Your task to perform on an android device: turn pop-ups off in chrome Image 0: 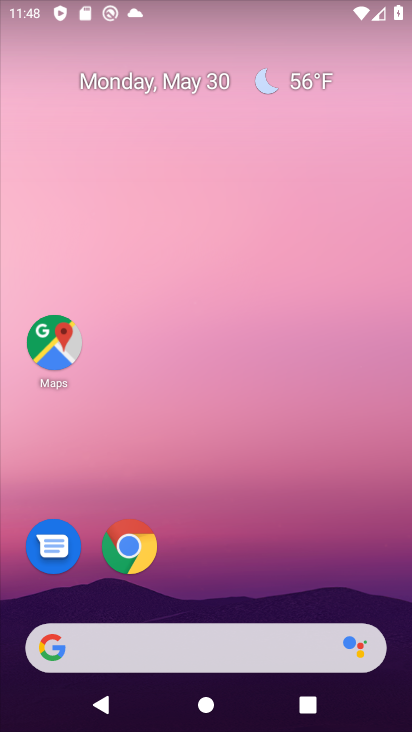
Step 0: drag from (277, 688) to (242, 137)
Your task to perform on an android device: turn pop-ups off in chrome Image 1: 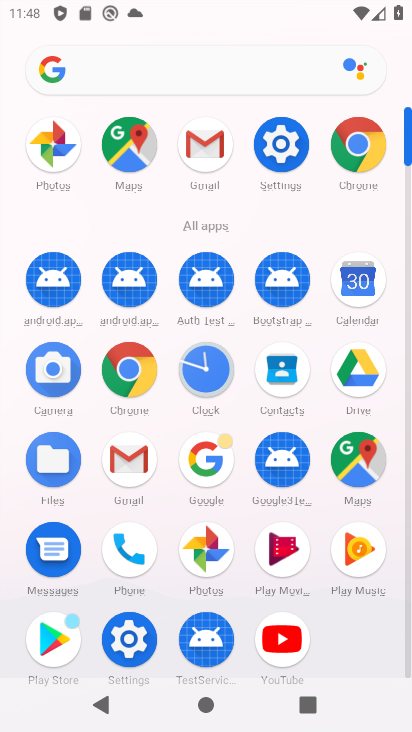
Step 1: click (368, 136)
Your task to perform on an android device: turn pop-ups off in chrome Image 2: 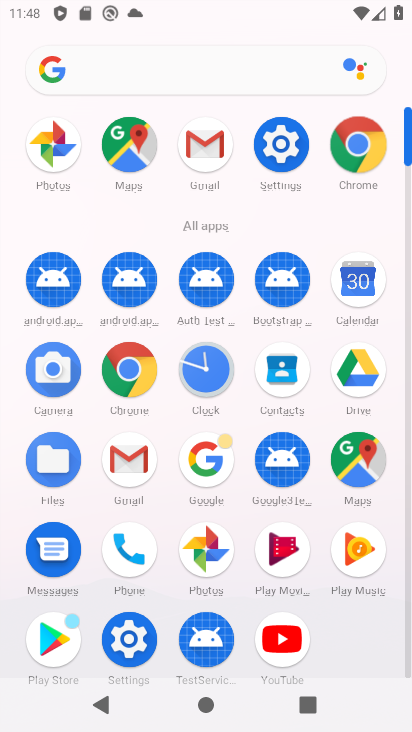
Step 2: click (368, 136)
Your task to perform on an android device: turn pop-ups off in chrome Image 3: 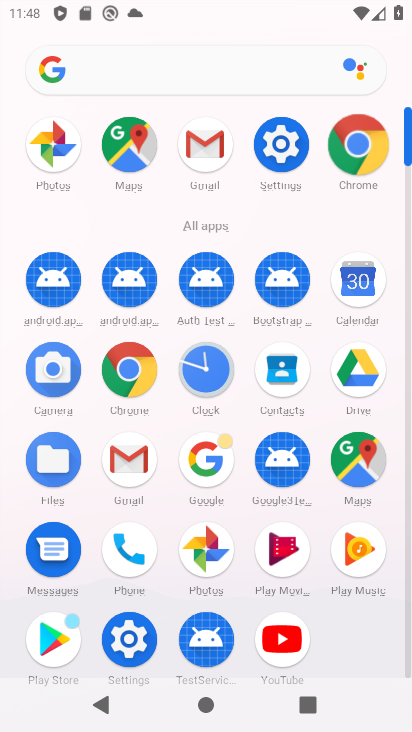
Step 3: click (368, 136)
Your task to perform on an android device: turn pop-ups off in chrome Image 4: 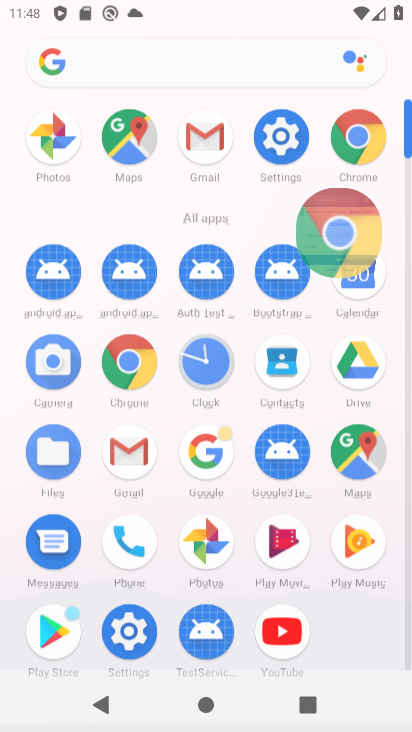
Step 4: click (368, 136)
Your task to perform on an android device: turn pop-ups off in chrome Image 5: 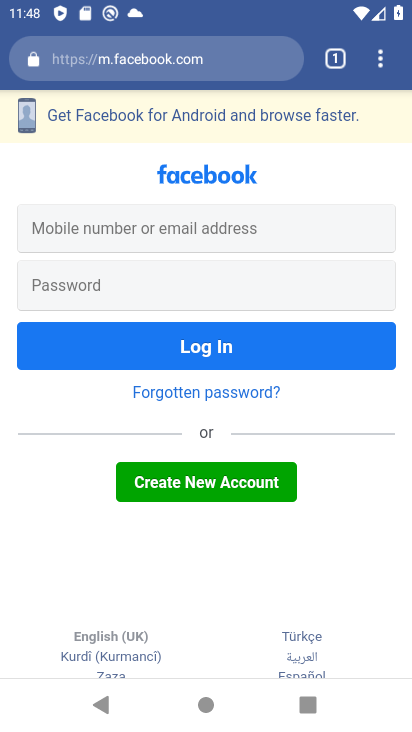
Step 5: press back button
Your task to perform on an android device: turn pop-ups off in chrome Image 6: 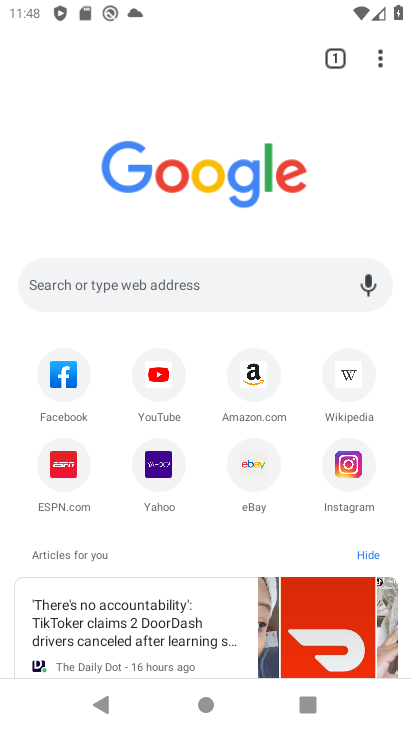
Step 6: click (378, 58)
Your task to perform on an android device: turn pop-ups off in chrome Image 7: 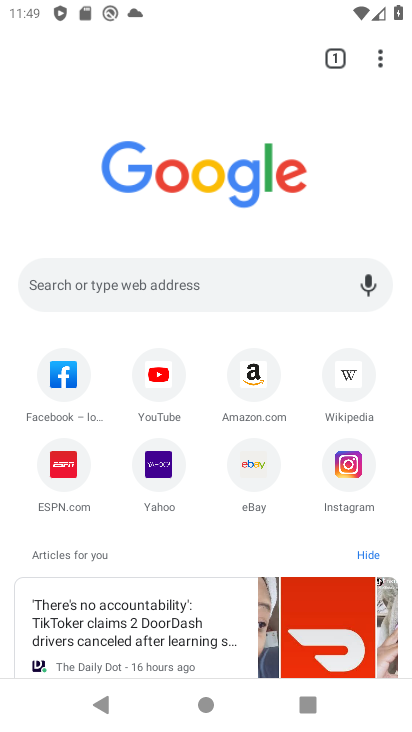
Step 7: drag from (380, 62) to (156, 544)
Your task to perform on an android device: turn pop-ups off in chrome Image 8: 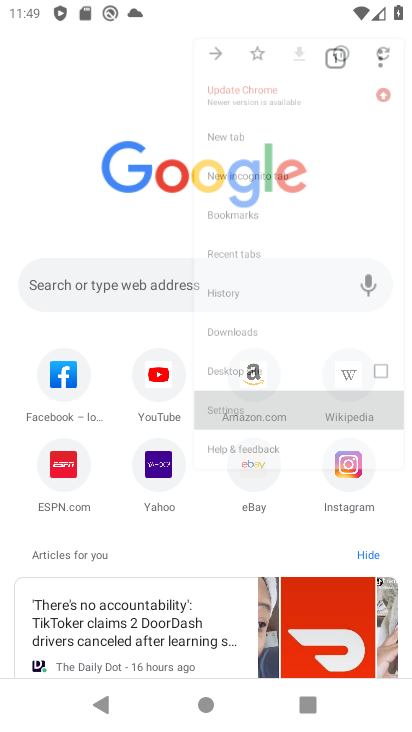
Step 8: click (161, 549)
Your task to perform on an android device: turn pop-ups off in chrome Image 9: 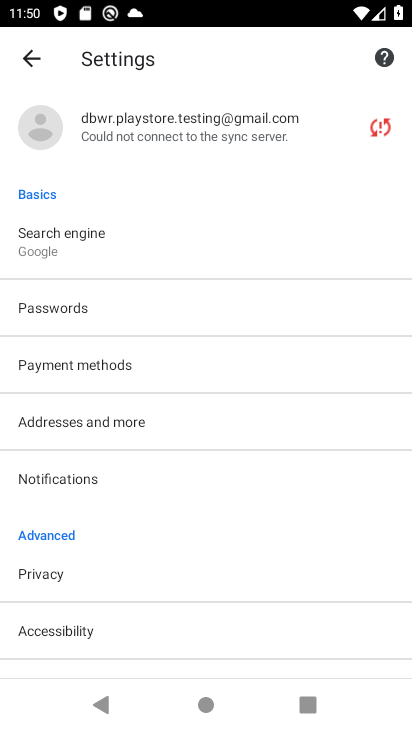
Step 9: drag from (85, 536) to (91, 121)
Your task to perform on an android device: turn pop-ups off in chrome Image 10: 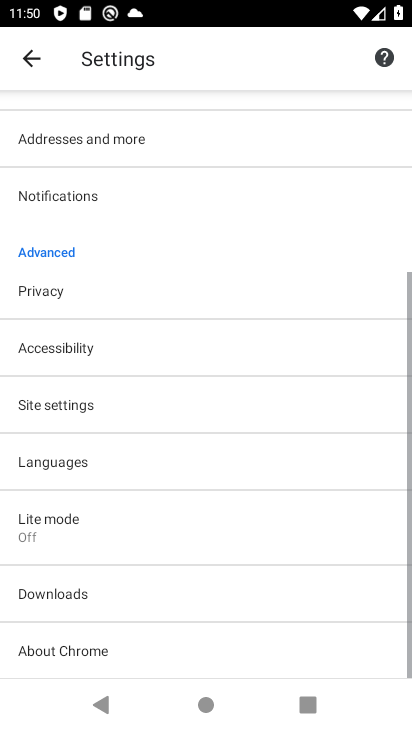
Step 10: drag from (91, 456) to (90, 234)
Your task to perform on an android device: turn pop-ups off in chrome Image 11: 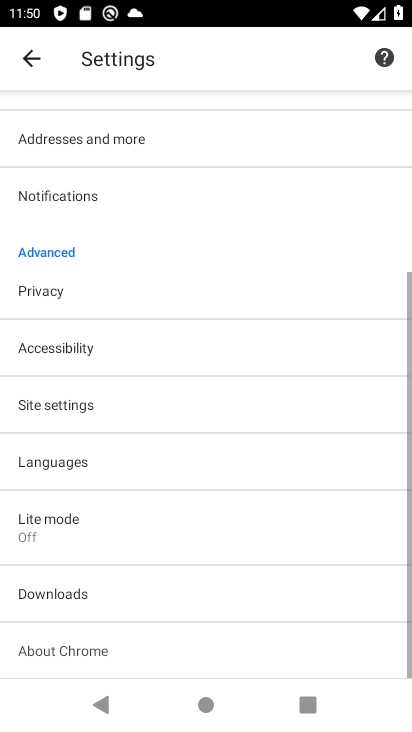
Step 11: drag from (121, 442) to (139, 167)
Your task to perform on an android device: turn pop-ups off in chrome Image 12: 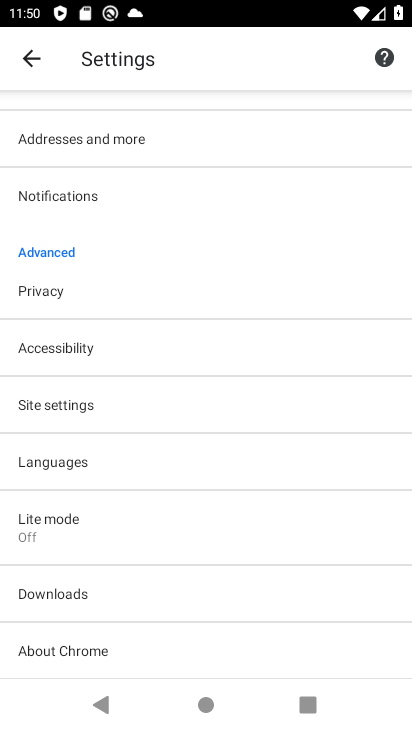
Step 12: click (46, 406)
Your task to perform on an android device: turn pop-ups off in chrome Image 13: 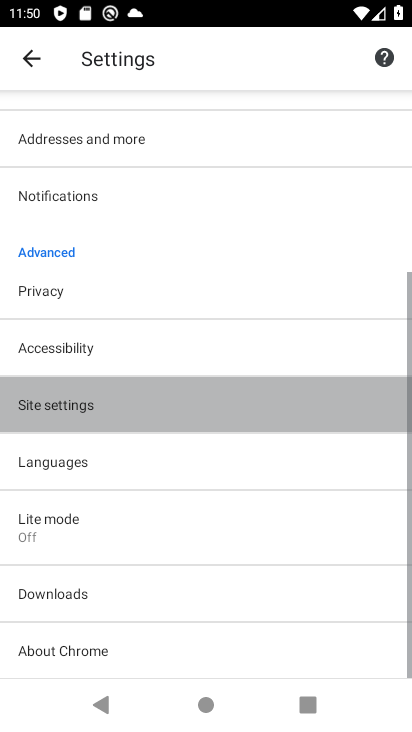
Step 13: click (46, 406)
Your task to perform on an android device: turn pop-ups off in chrome Image 14: 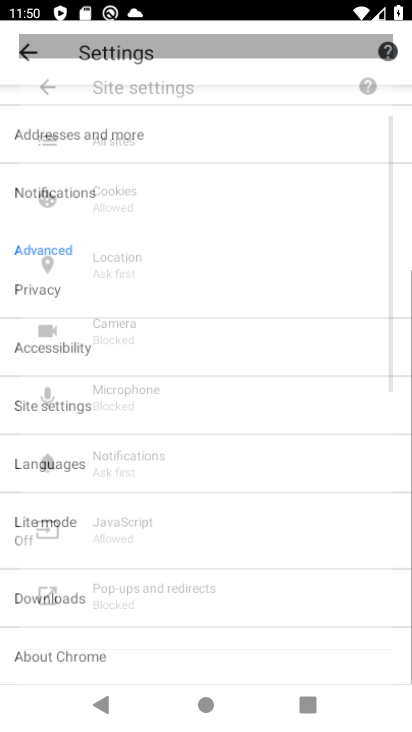
Step 14: click (47, 406)
Your task to perform on an android device: turn pop-ups off in chrome Image 15: 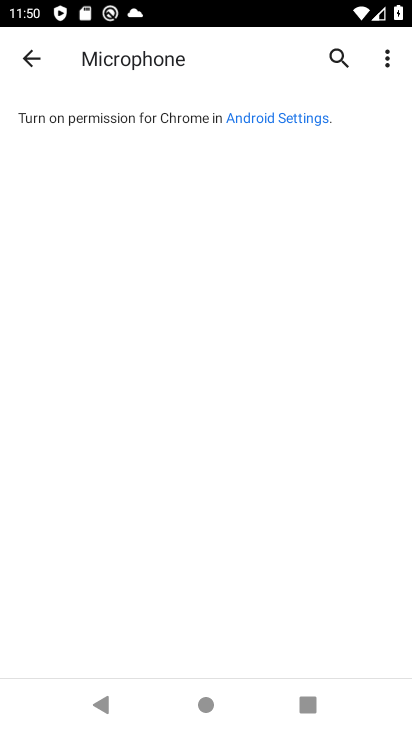
Step 15: click (42, 59)
Your task to perform on an android device: turn pop-ups off in chrome Image 16: 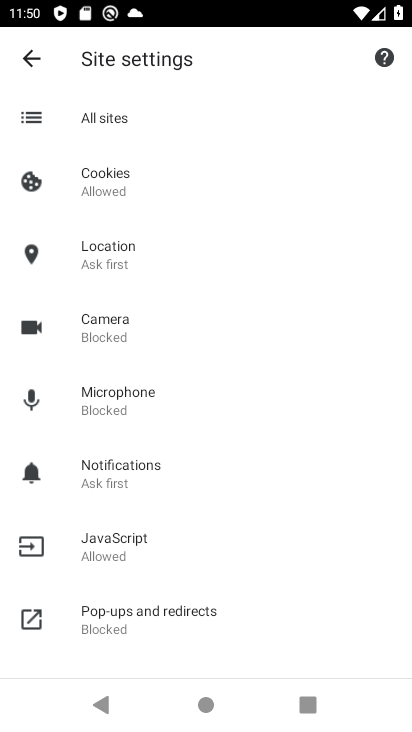
Step 16: click (114, 624)
Your task to perform on an android device: turn pop-ups off in chrome Image 17: 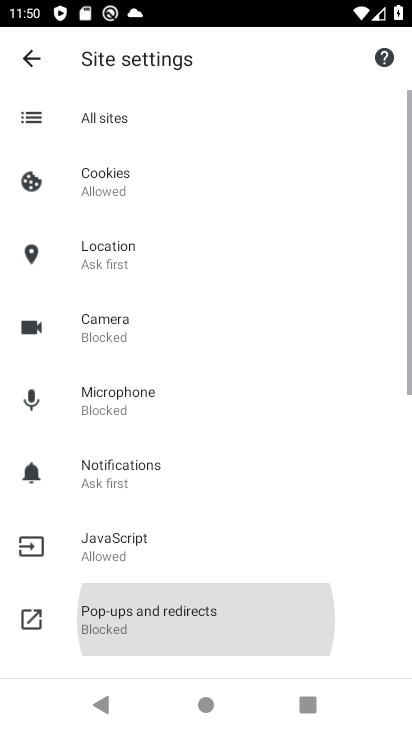
Step 17: click (114, 624)
Your task to perform on an android device: turn pop-ups off in chrome Image 18: 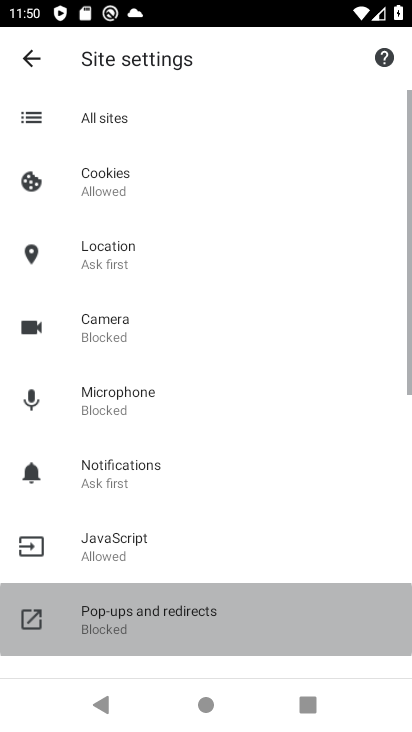
Step 18: click (114, 624)
Your task to perform on an android device: turn pop-ups off in chrome Image 19: 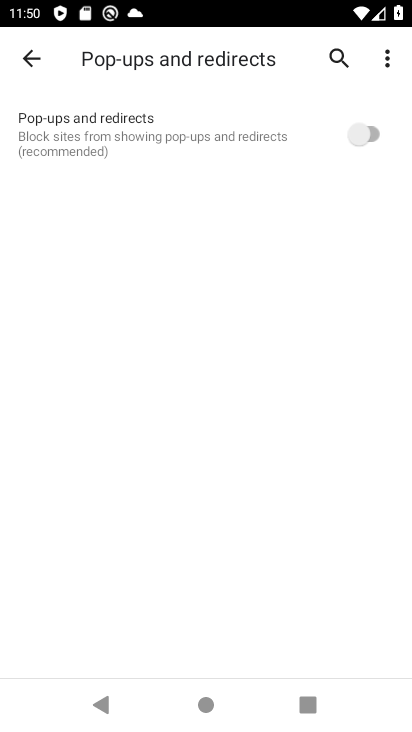
Step 19: task complete